Your task to perform on an android device: Turn on the flashlight Image 0: 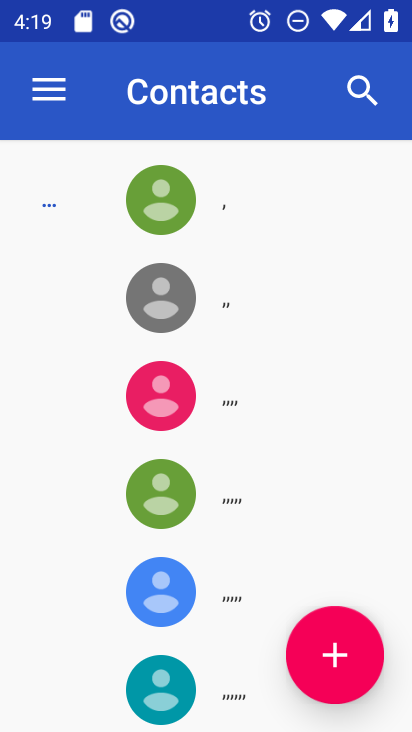
Step 0: press home button
Your task to perform on an android device: Turn on the flashlight Image 1: 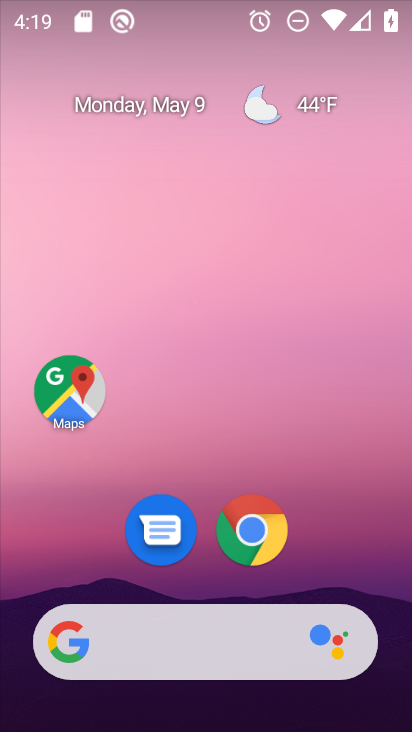
Step 1: drag from (198, 576) to (34, 30)
Your task to perform on an android device: Turn on the flashlight Image 2: 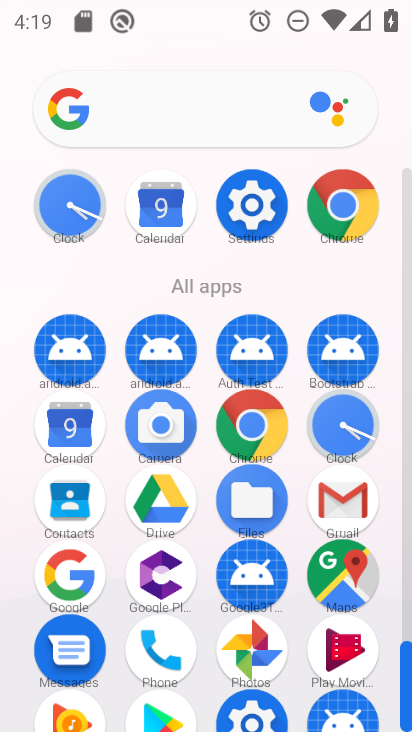
Step 2: click (249, 204)
Your task to perform on an android device: Turn on the flashlight Image 3: 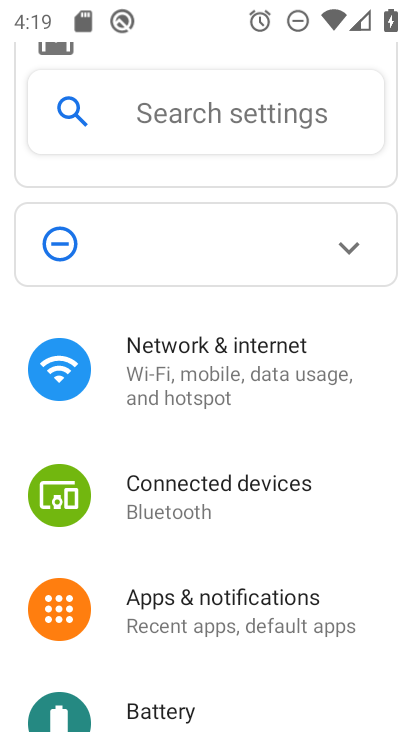
Step 3: click (176, 112)
Your task to perform on an android device: Turn on the flashlight Image 4: 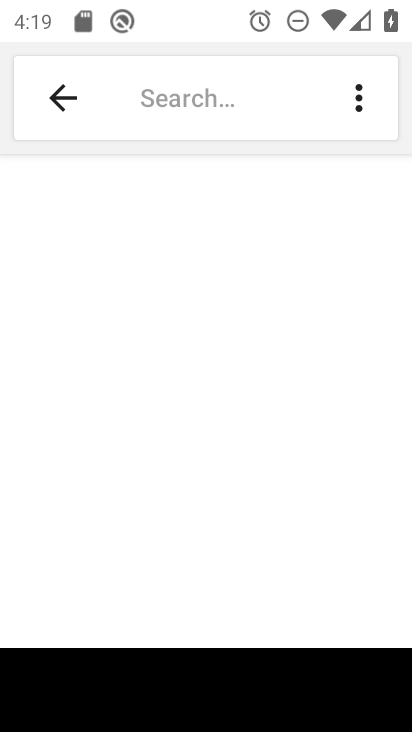
Step 4: type "flashlight"
Your task to perform on an android device: Turn on the flashlight Image 5: 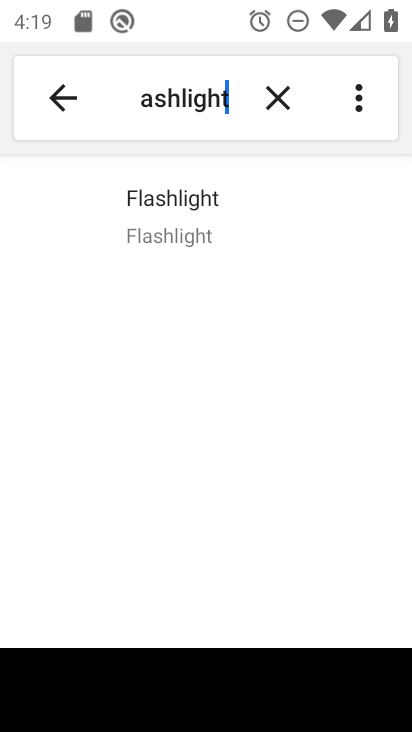
Step 5: click (167, 207)
Your task to perform on an android device: Turn on the flashlight Image 6: 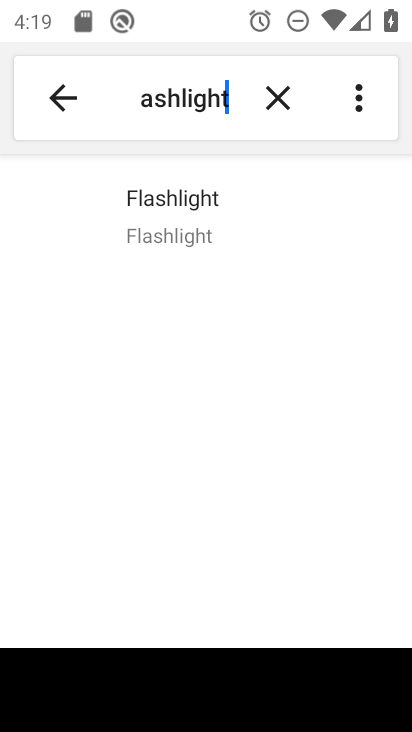
Step 6: task complete